Your task to perform on an android device: Clear the cart on amazon. Image 0: 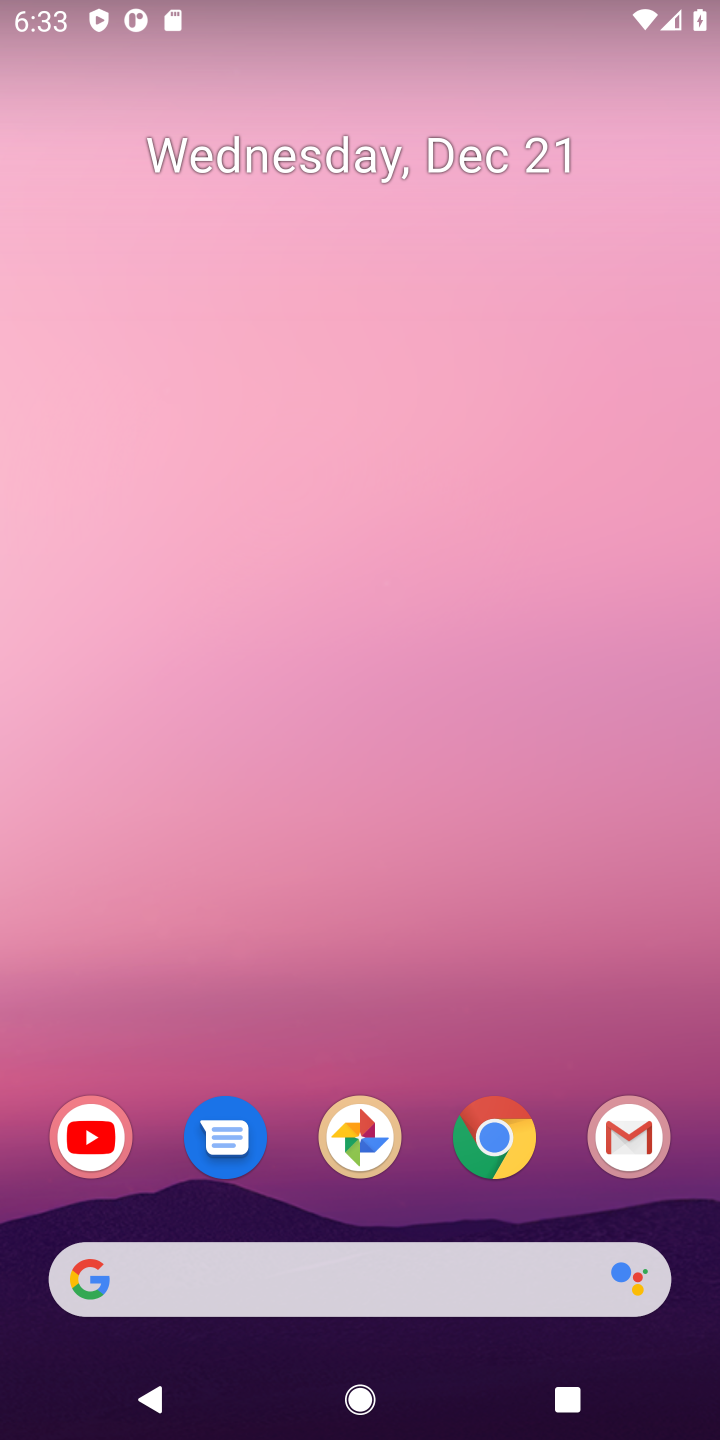
Step 0: click (480, 1134)
Your task to perform on an android device: Clear the cart on amazon. Image 1: 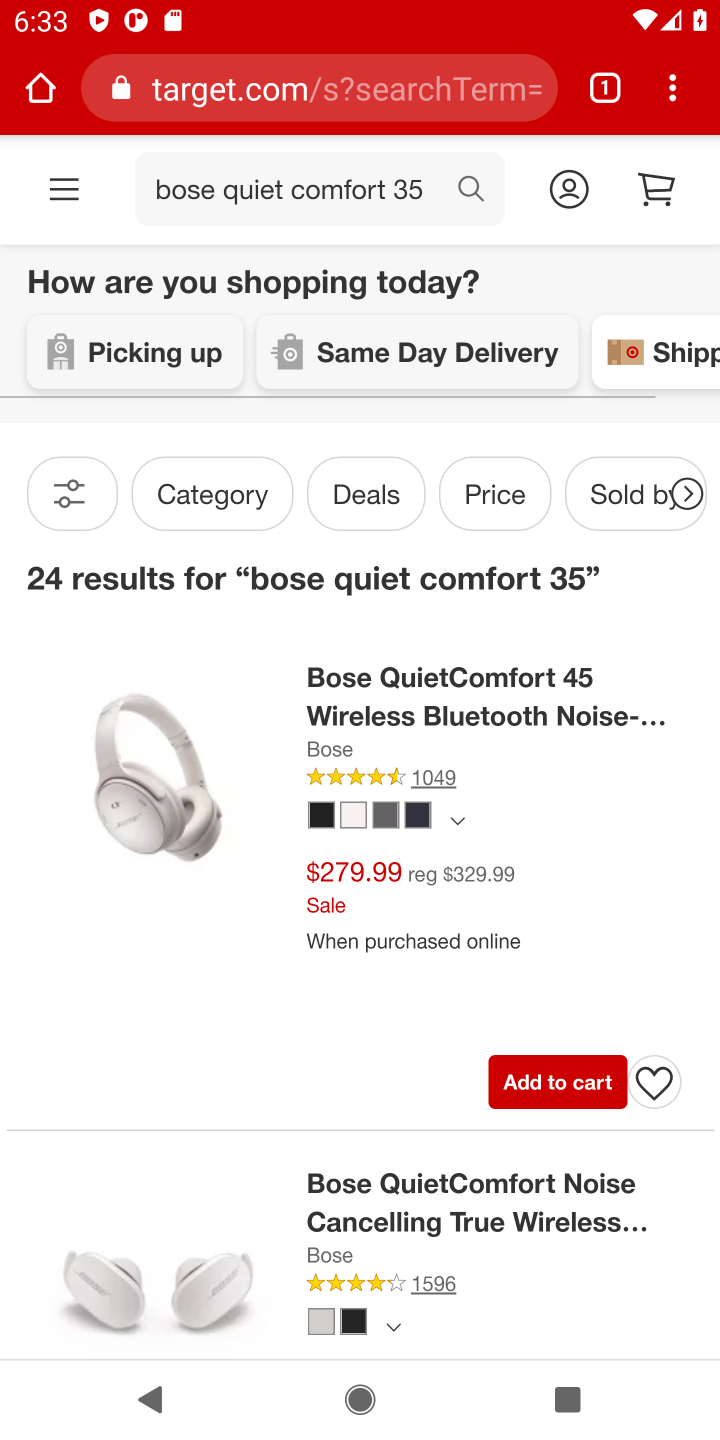
Step 1: click (274, 100)
Your task to perform on an android device: Clear the cart on amazon. Image 2: 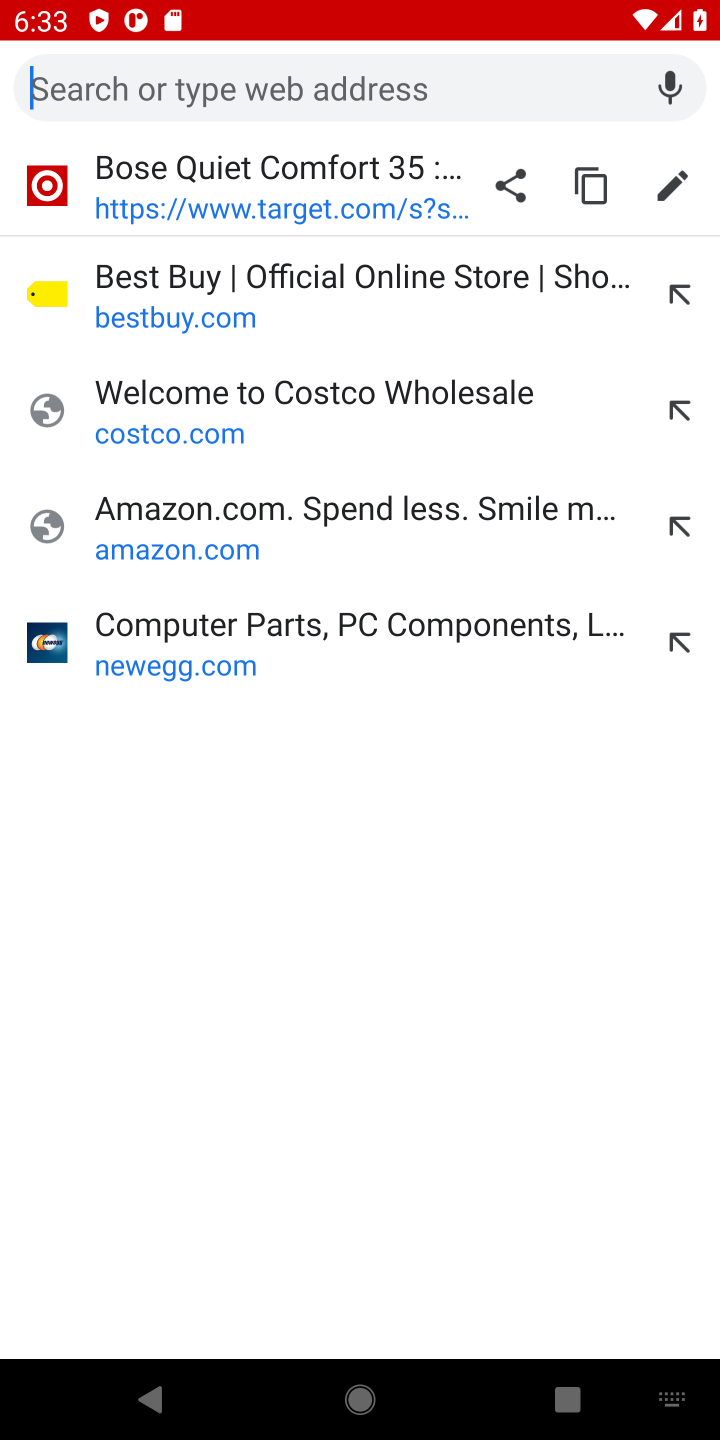
Step 2: click (131, 523)
Your task to perform on an android device: Clear the cart on amazon. Image 3: 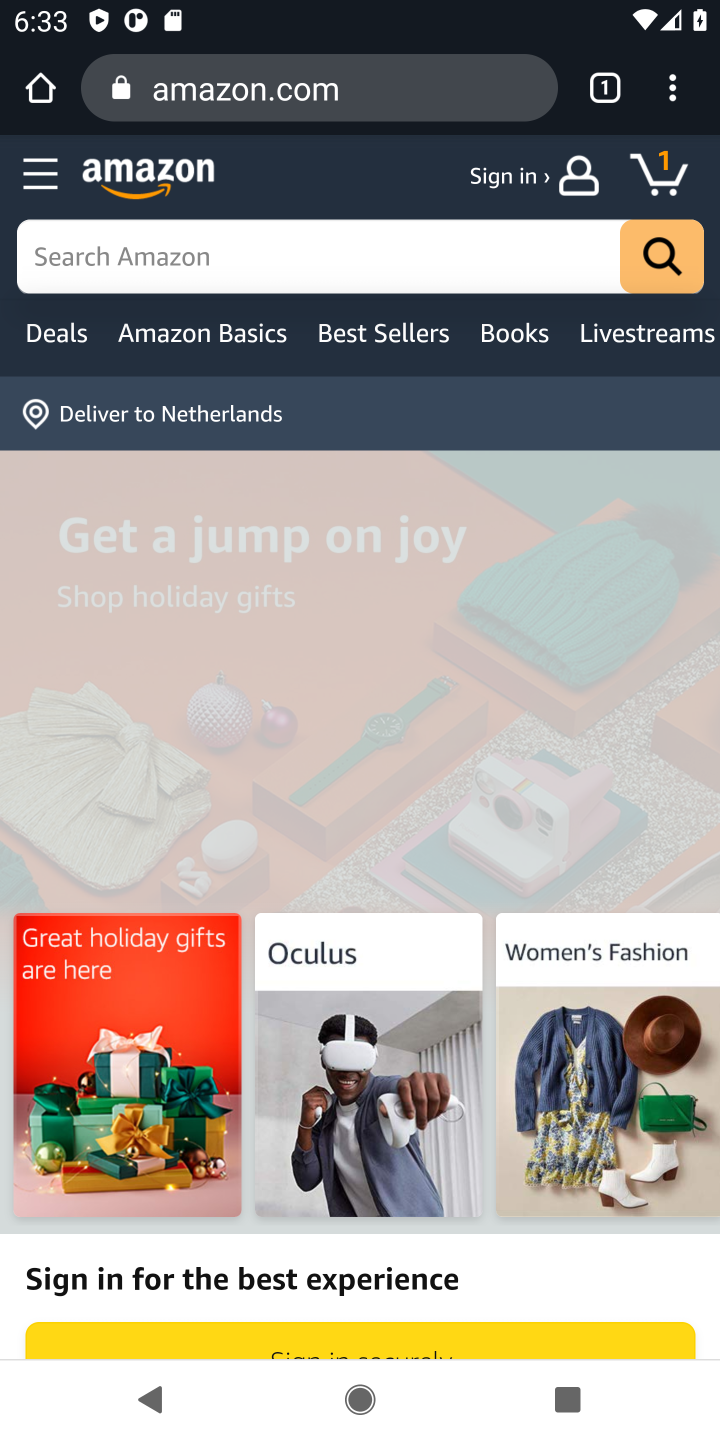
Step 3: click (664, 185)
Your task to perform on an android device: Clear the cart on amazon. Image 4: 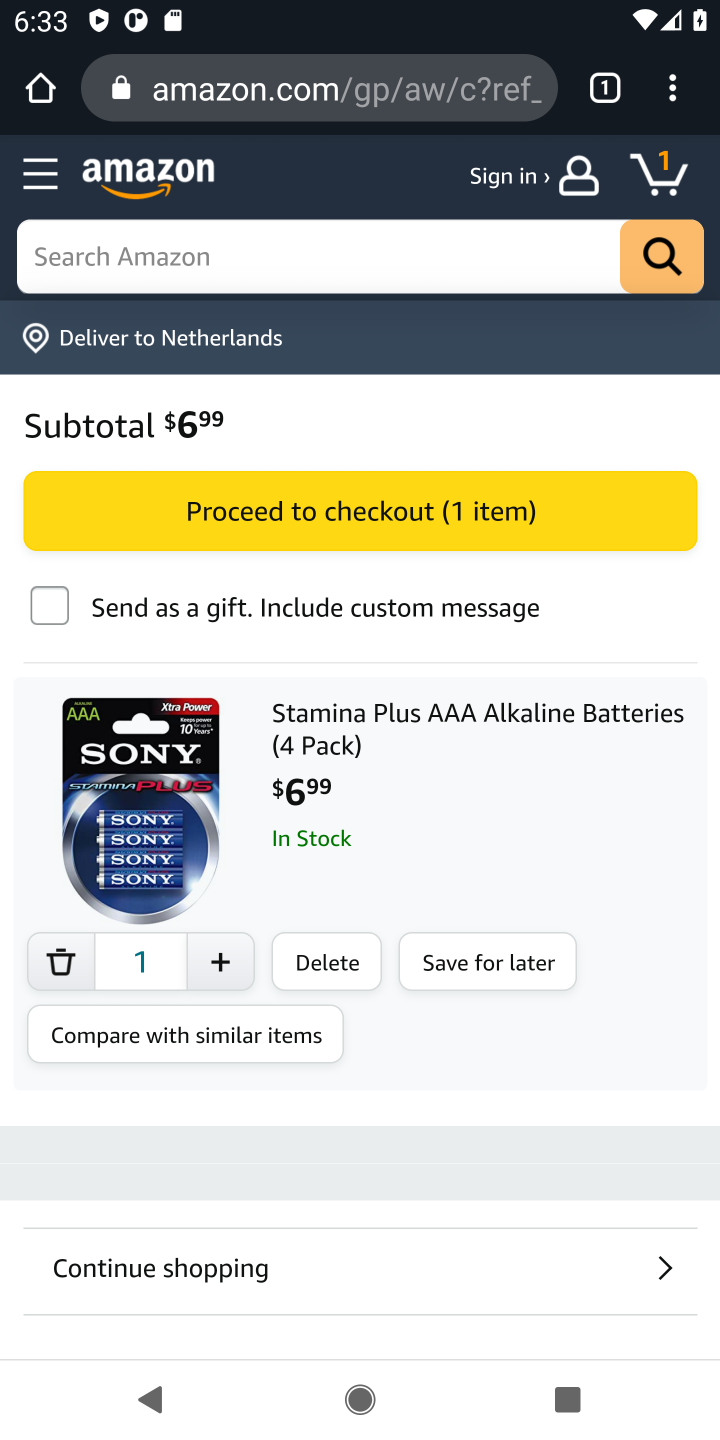
Step 4: click (321, 971)
Your task to perform on an android device: Clear the cart on amazon. Image 5: 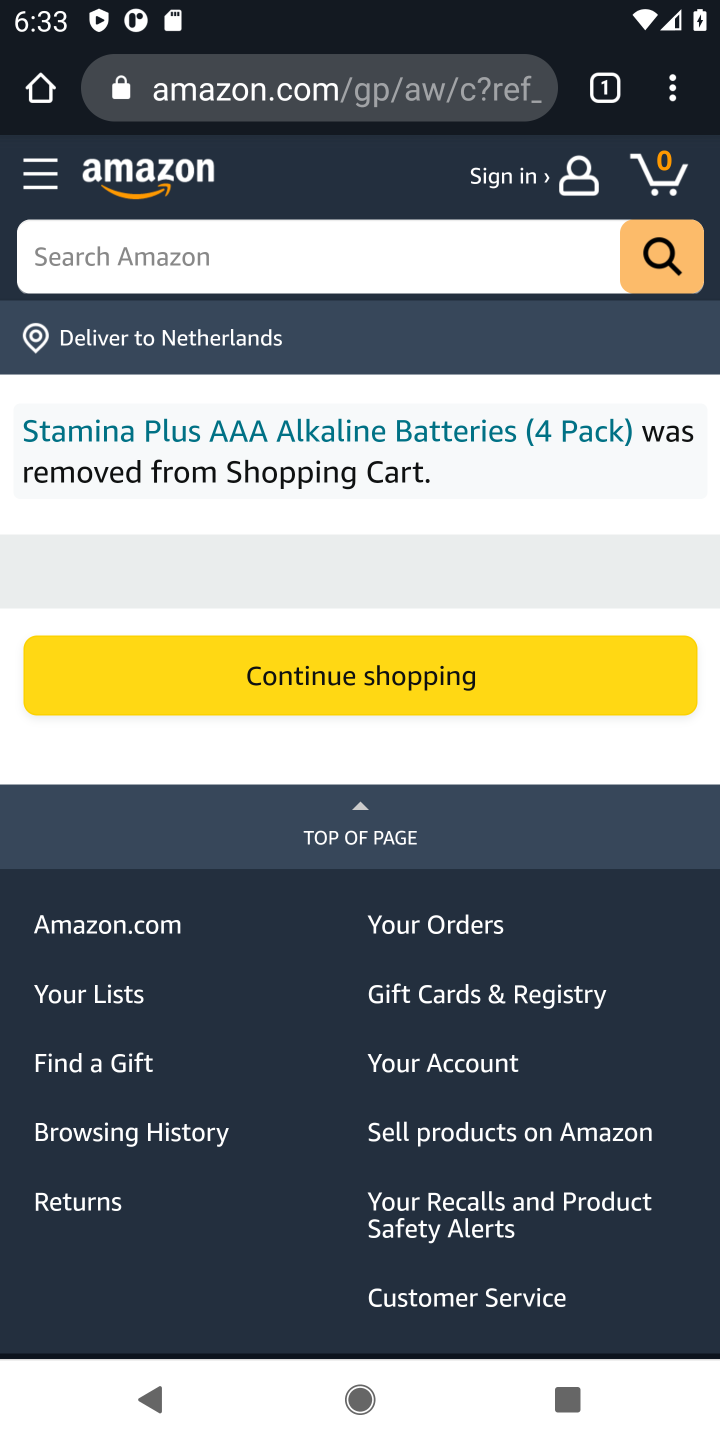
Step 5: task complete